Your task to perform on an android device: Open Chrome and go to settings Image 0: 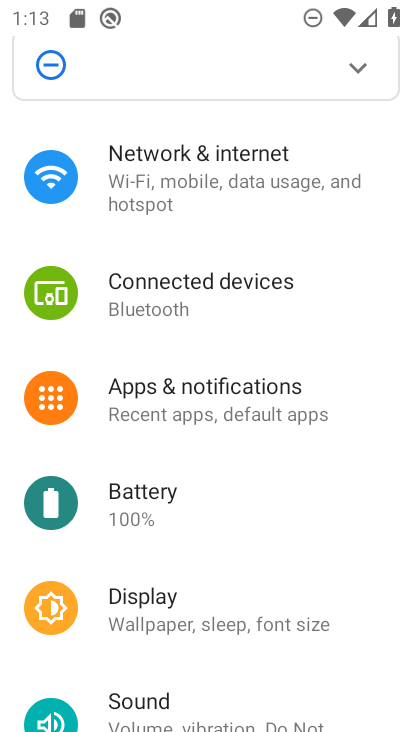
Step 0: press home button
Your task to perform on an android device: Open Chrome and go to settings Image 1: 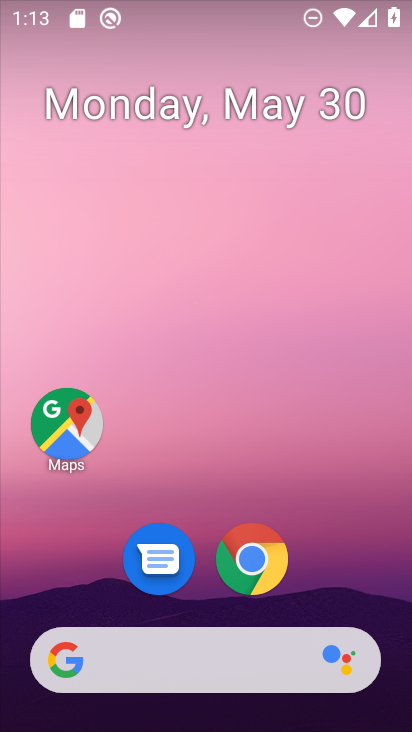
Step 1: click (246, 562)
Your task to perform on an android device: Open Chrome and go to settings Image 2: 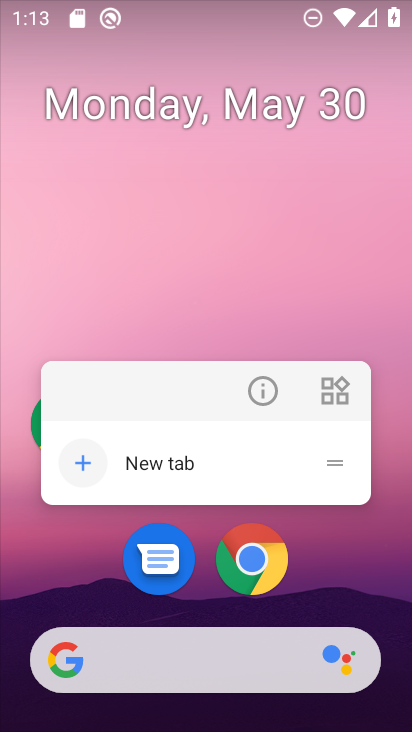
Step 2: click (247, 561)
Your task to perform on an android device: Open Chrome and go to settings Image 3: 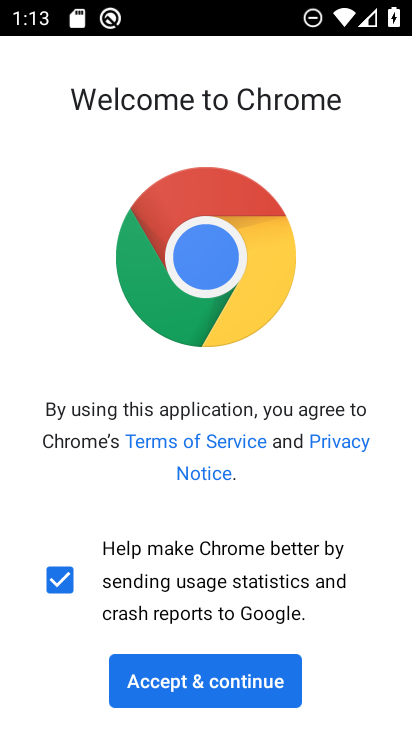
Step 3: click (231, 684)
Your task to perform on an android device: Open Chrome and go to settings Image 4: 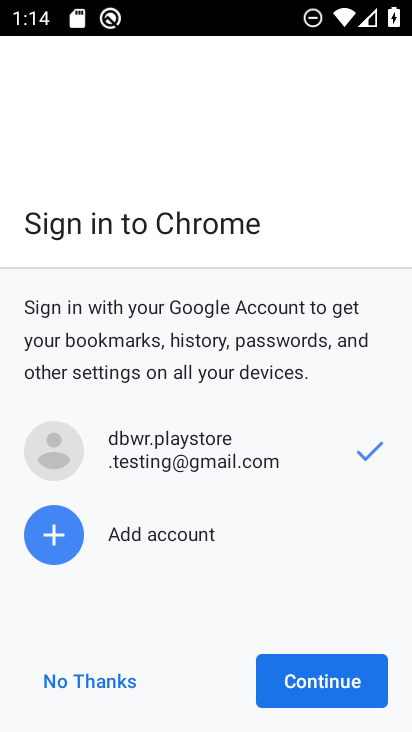
Step 4: click (321, 686)
Your task to perform on an android device: Open Chrome and go to settings Image 5: 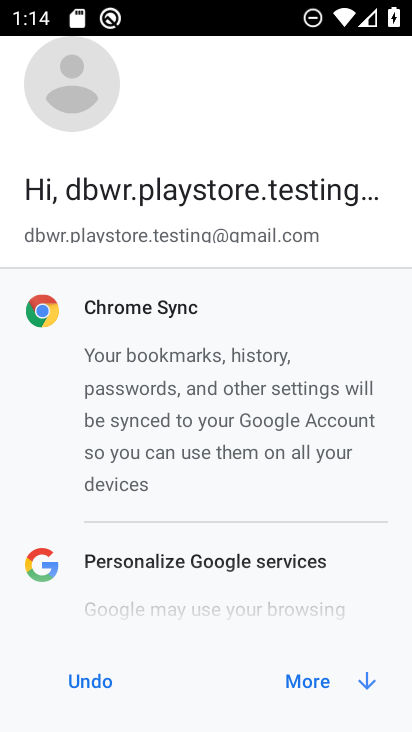
Step 5: click (320, 678)
Your task to perform on an android device: Open Chrome and go to settings Image 6: 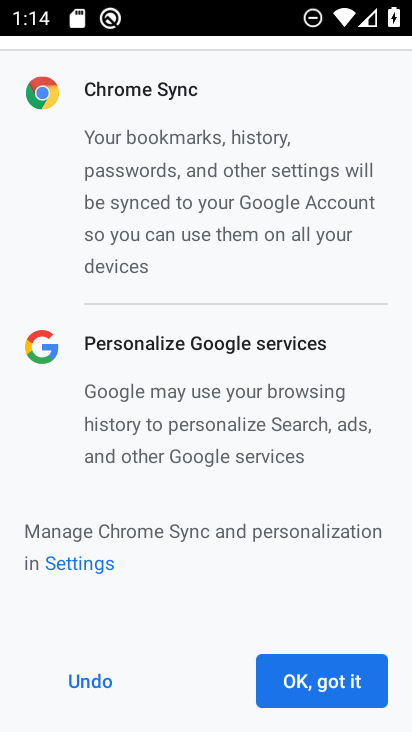
Step 6: click (321, 672)
Your task to perform on an android device: Open Chrome and go to settings Image 7: 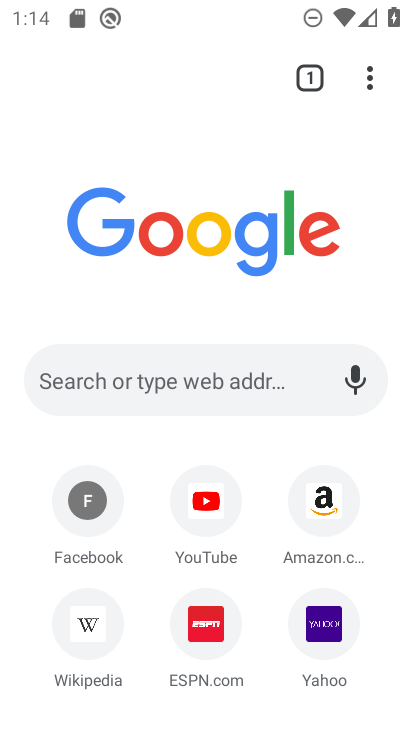
Step 7: click (366, 92)
Your task to perform on an android device: Open Chrome and go to settings Image 8: 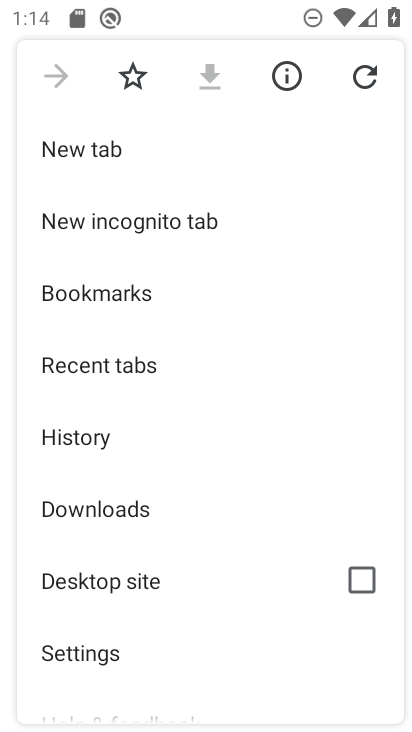
Step 8: click (99, 669)
Your task to perform on an android device: Open Chrome and go to settings Image 9: 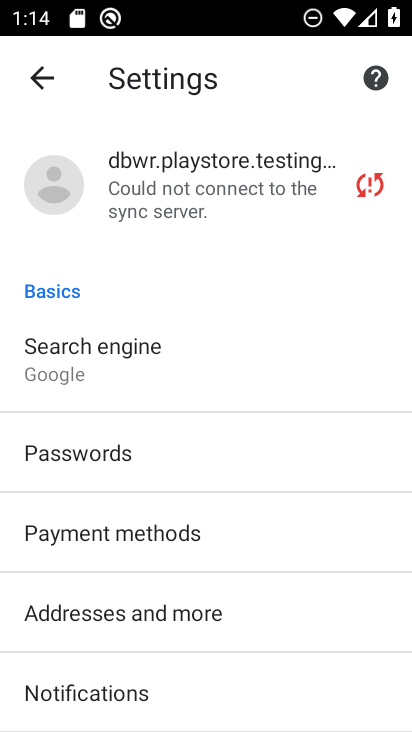
Step 9: task complete